Your task to perform on an android device: toggle data saver in the chrome app Image 0: 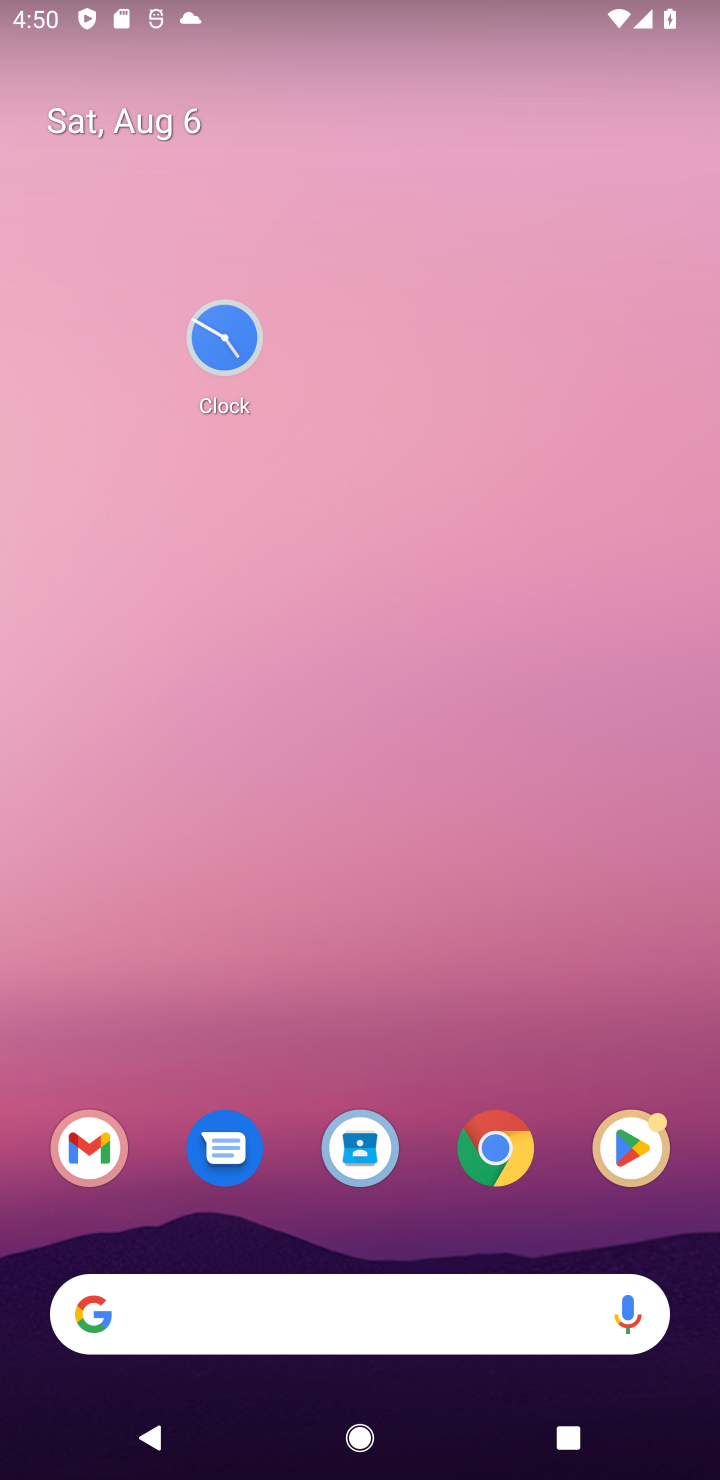
Step 0: click (667, 278)
Your task to perform on an android device: toggle data saver in the chrome app Image 1: 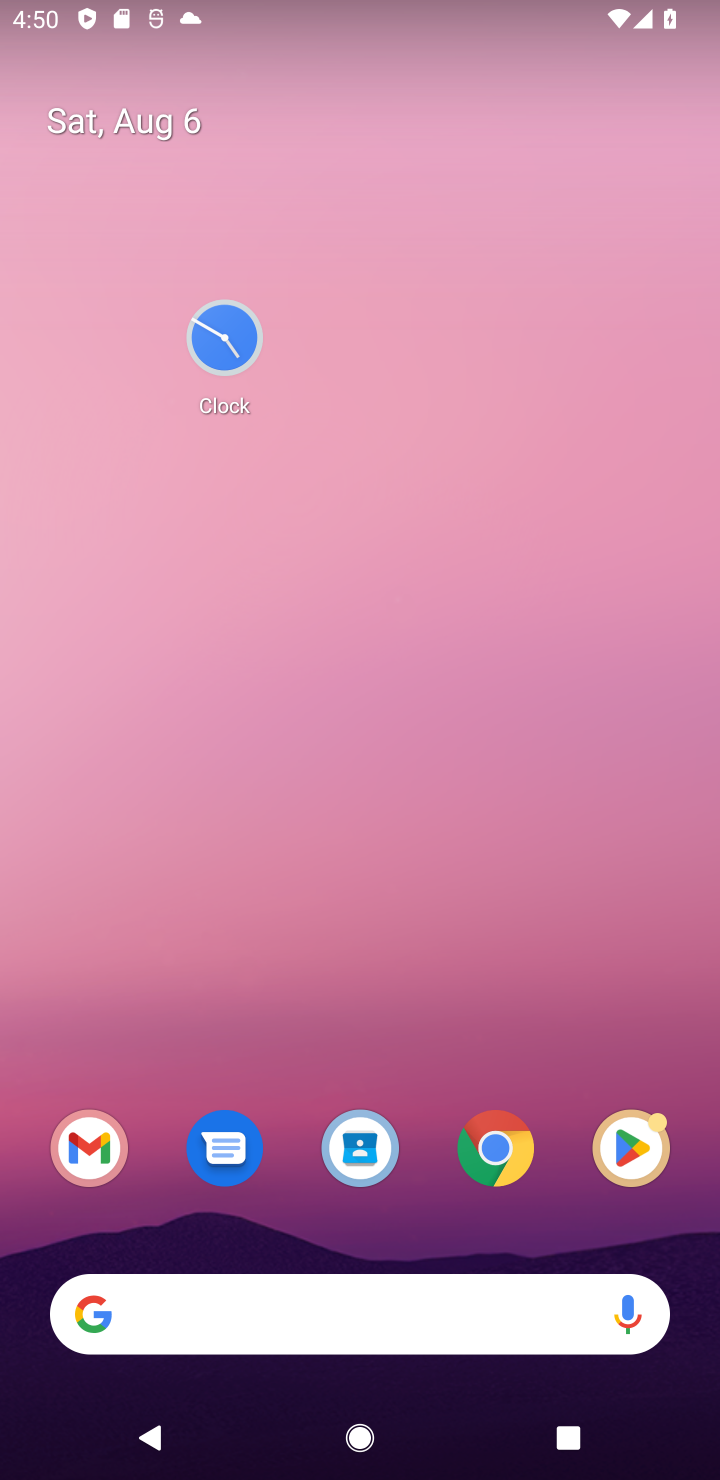
Step 1: drag from (449, 1254) to (439, 462)
Your task to perform on an android device: toggle data saver in the chrome app Image 2: 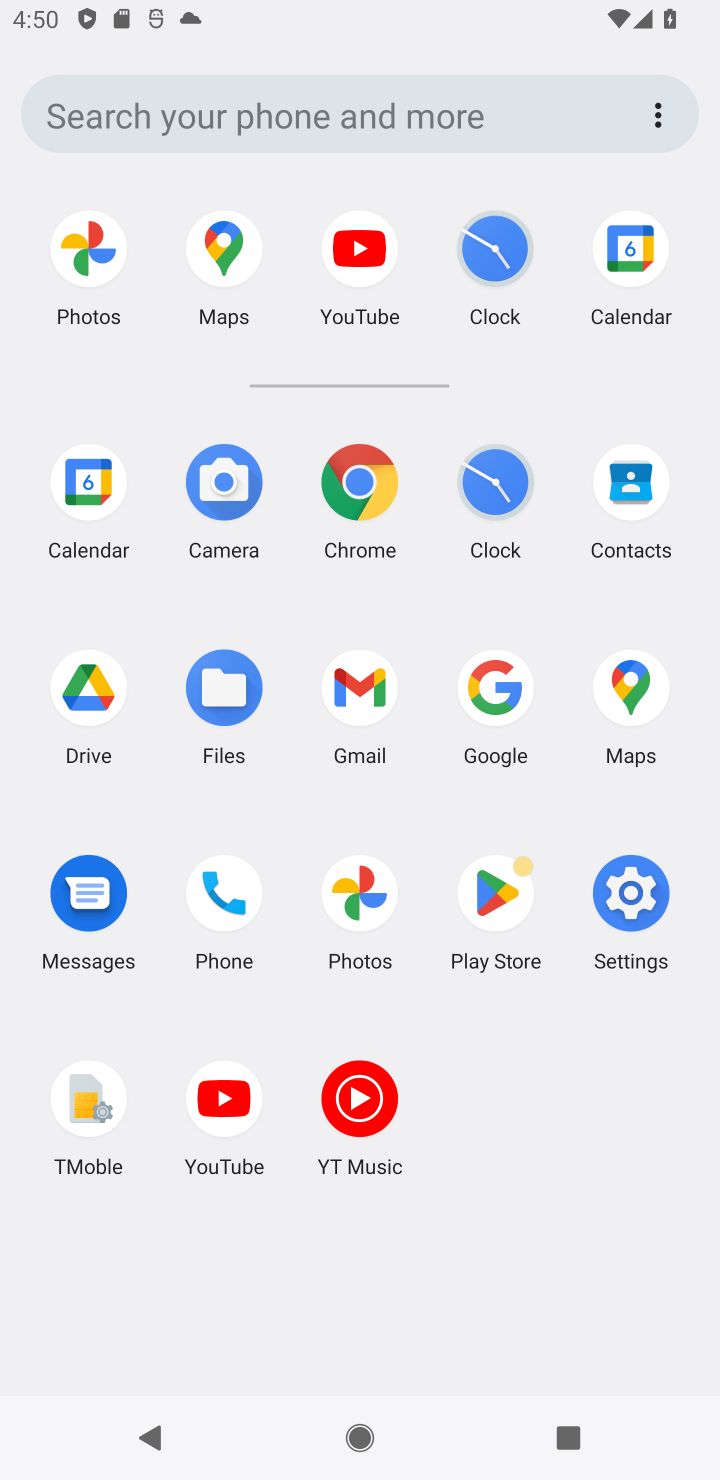
Step 2: click (347, 477)
Your task to perform on an android device: toggle data saver in the chrome app Image 3: 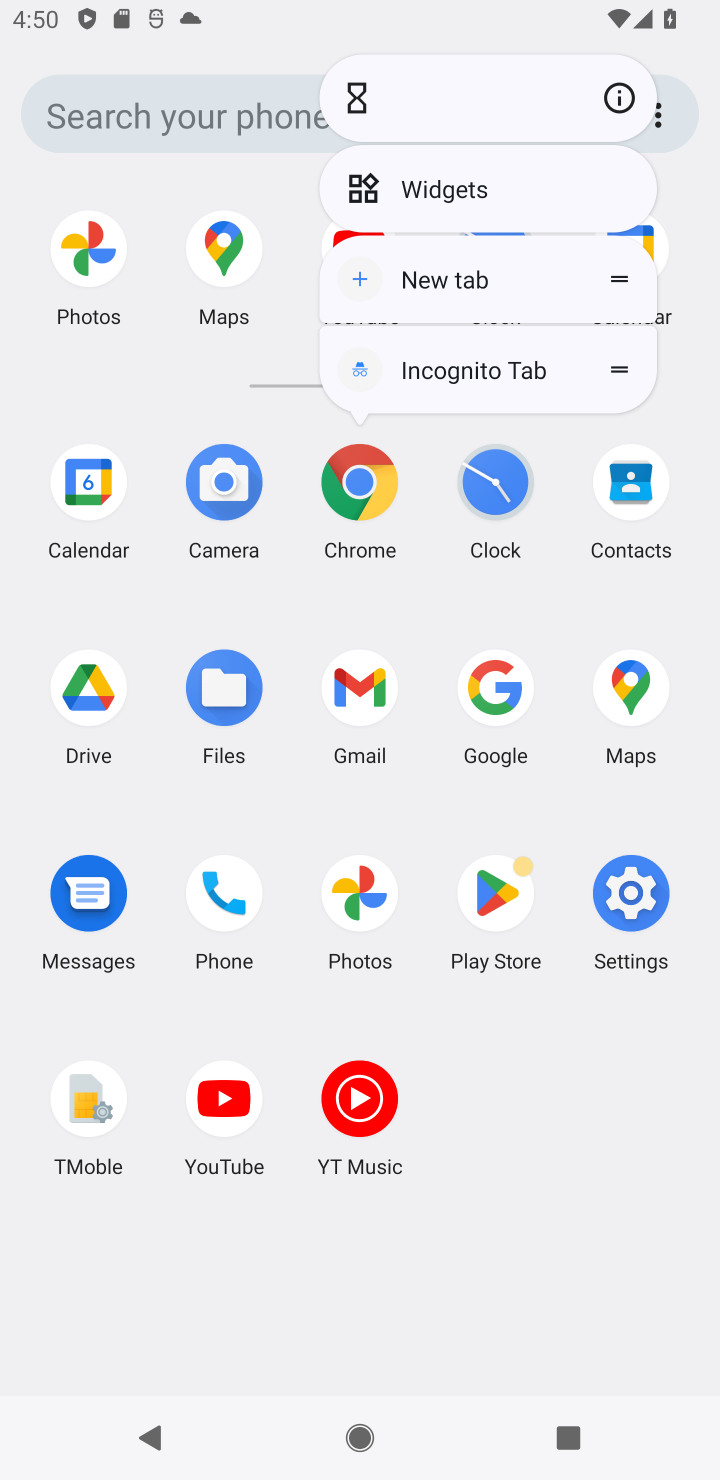
Step 3: click (358, 479)
Your task to perform on an android device: toggle data saver in the chrome app Image 4: 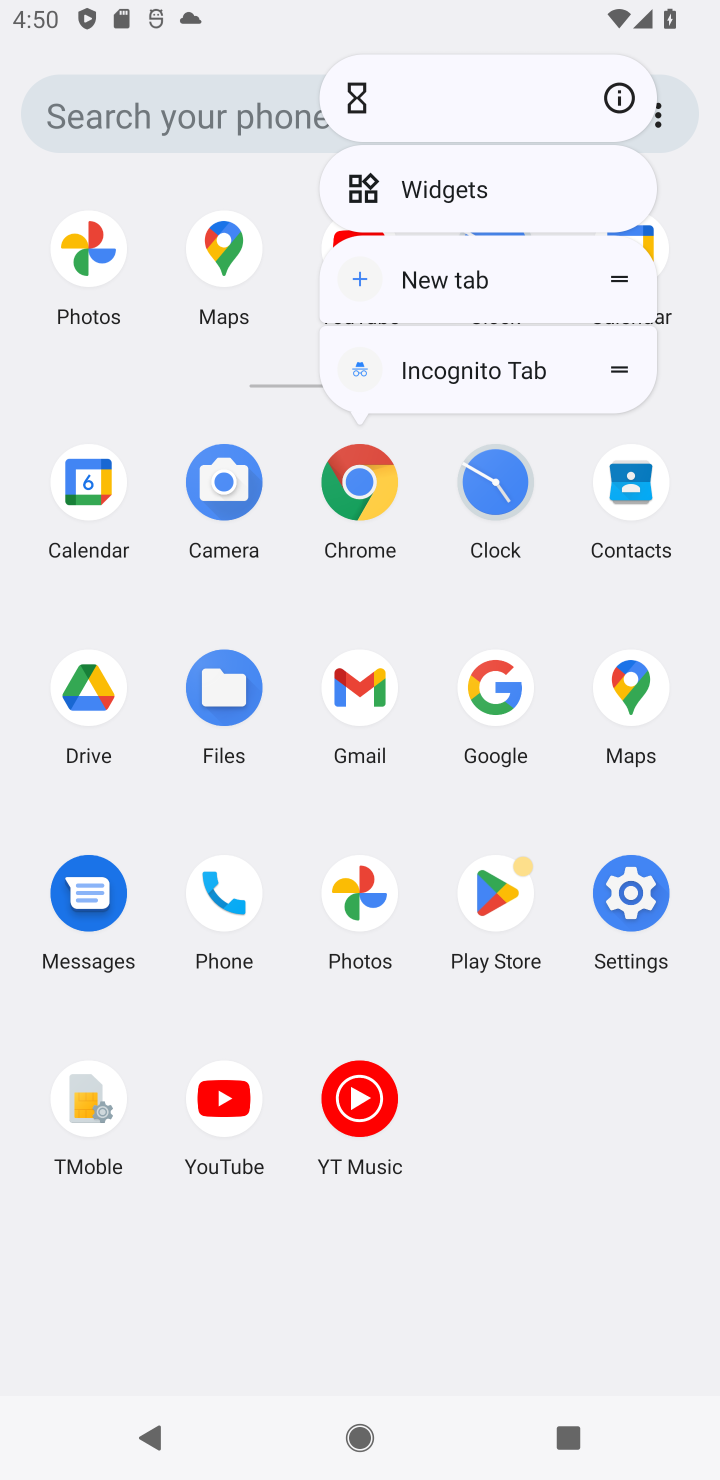
Step 4: click (641, 97)
Your task to perform on an android device: toggle data saver in the chrome app Image 5: 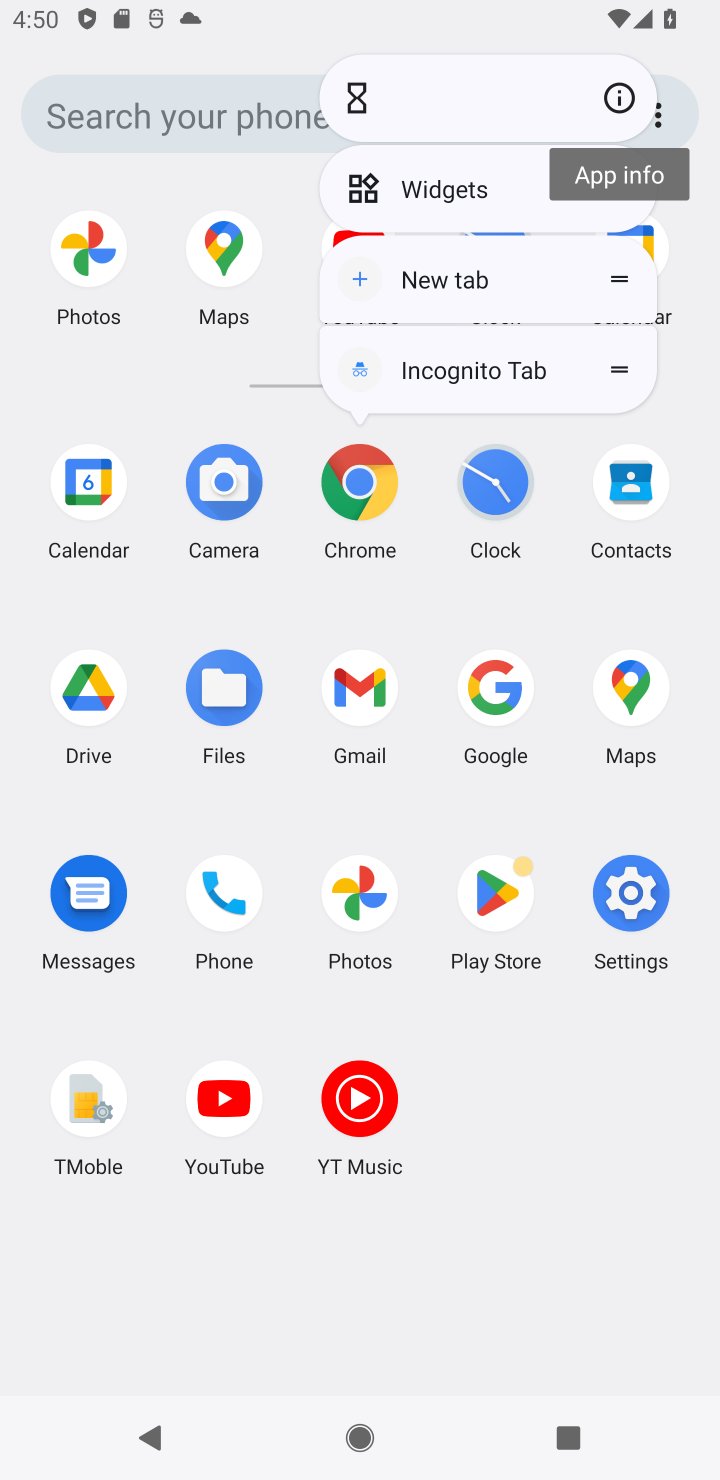
Step 5: click (633, 99)
Your task to perform on an android device: toggle data saver in the chrome app Image 6: 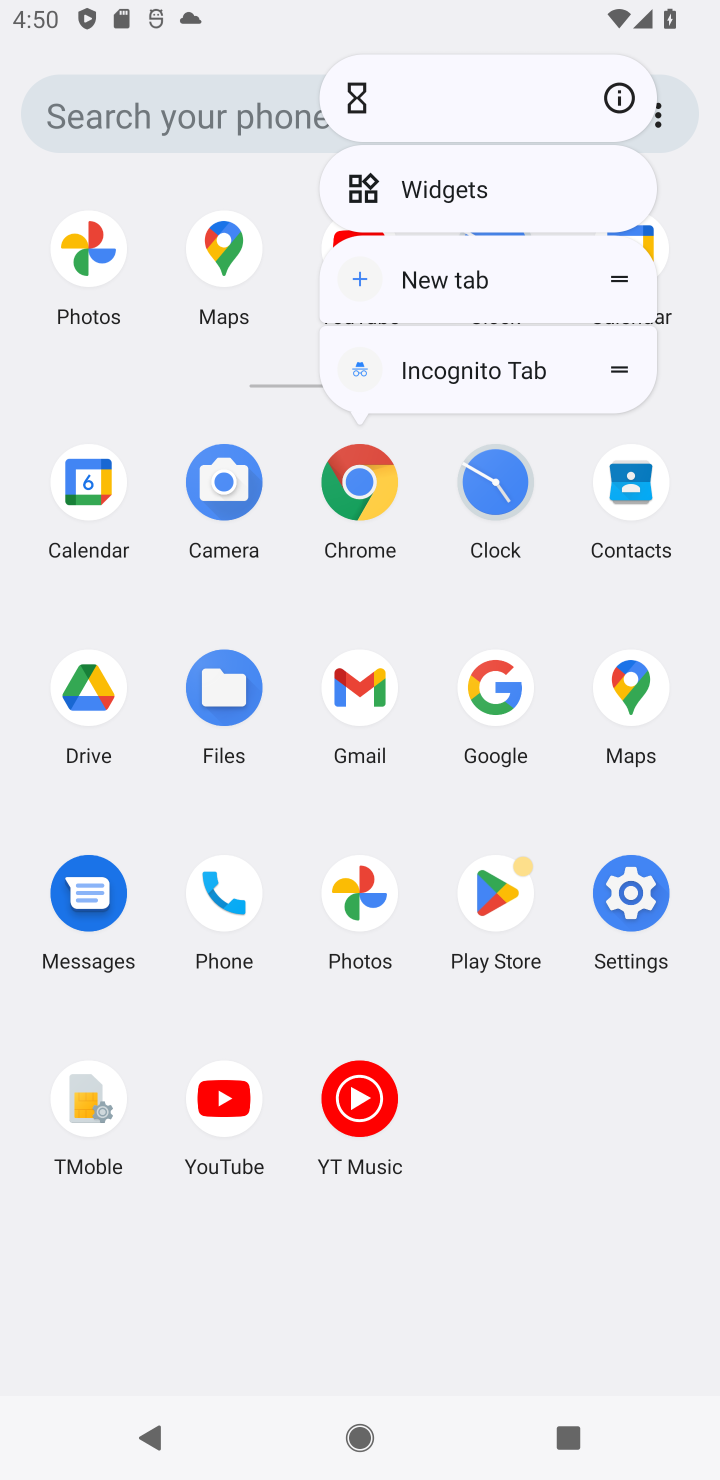
Step 6: click (629, 94)
Your task to perform on an android device: toggle data saver in the chrome app Image 7: 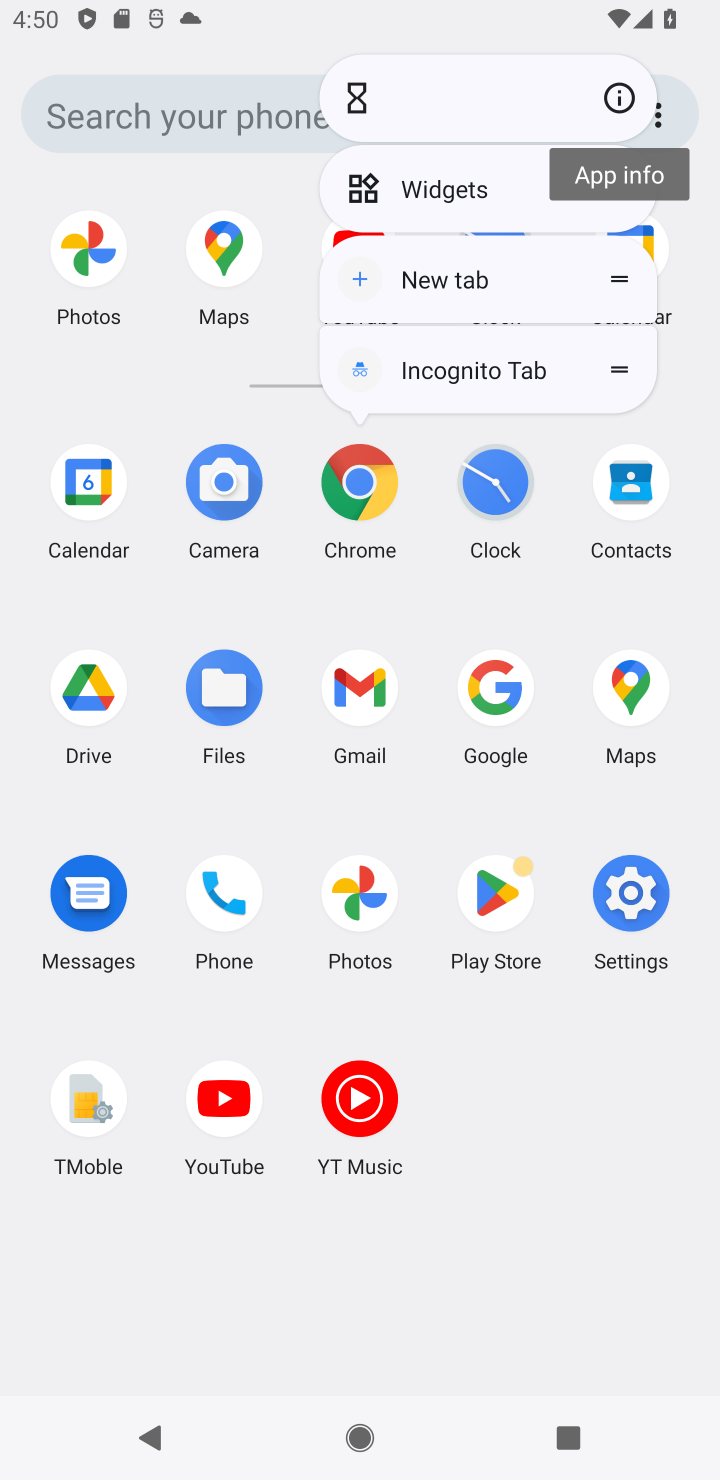
Step 7: click (627, 92)
Your task to perform on an android device: toggle data saver in the chrome app Image 8: 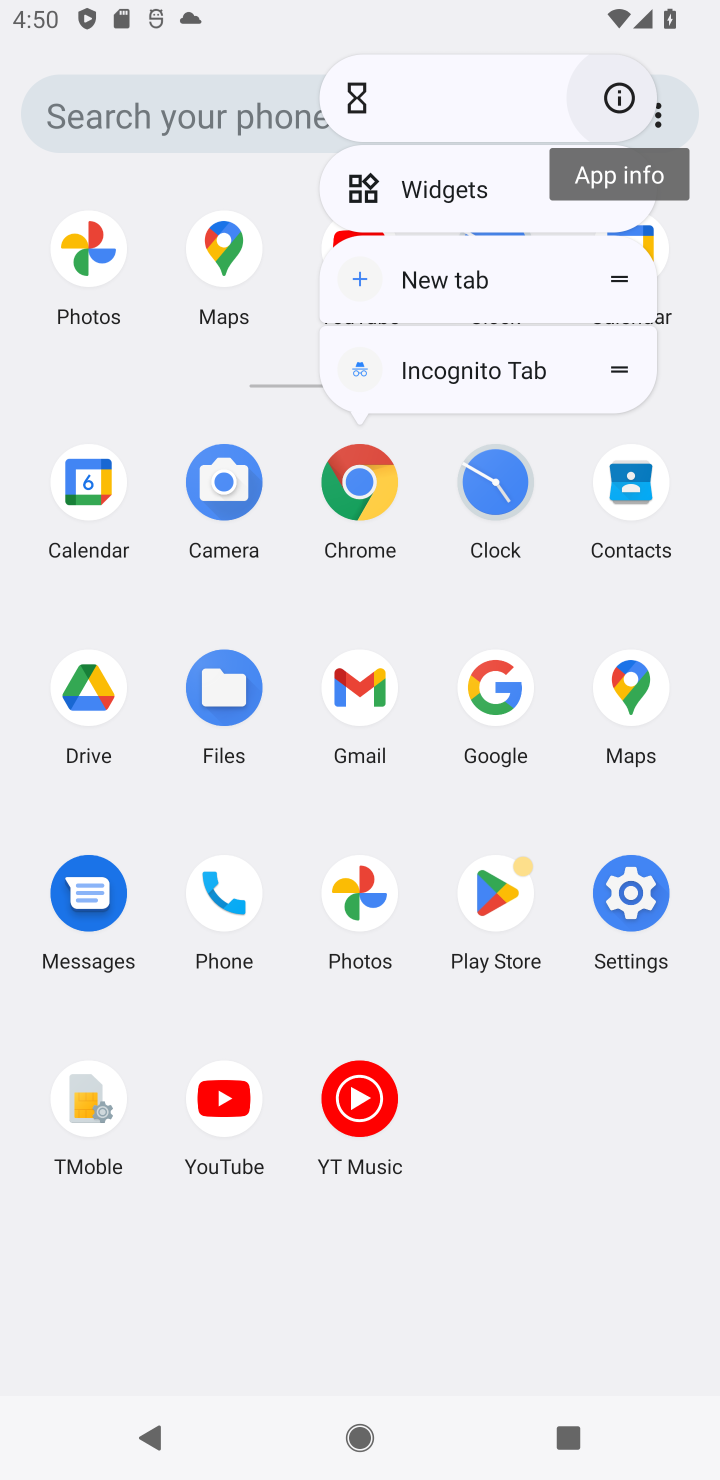
Step 8: click (627, 92)
Your task to perform on an android device: toggle data saver in the chrome app Image 9: 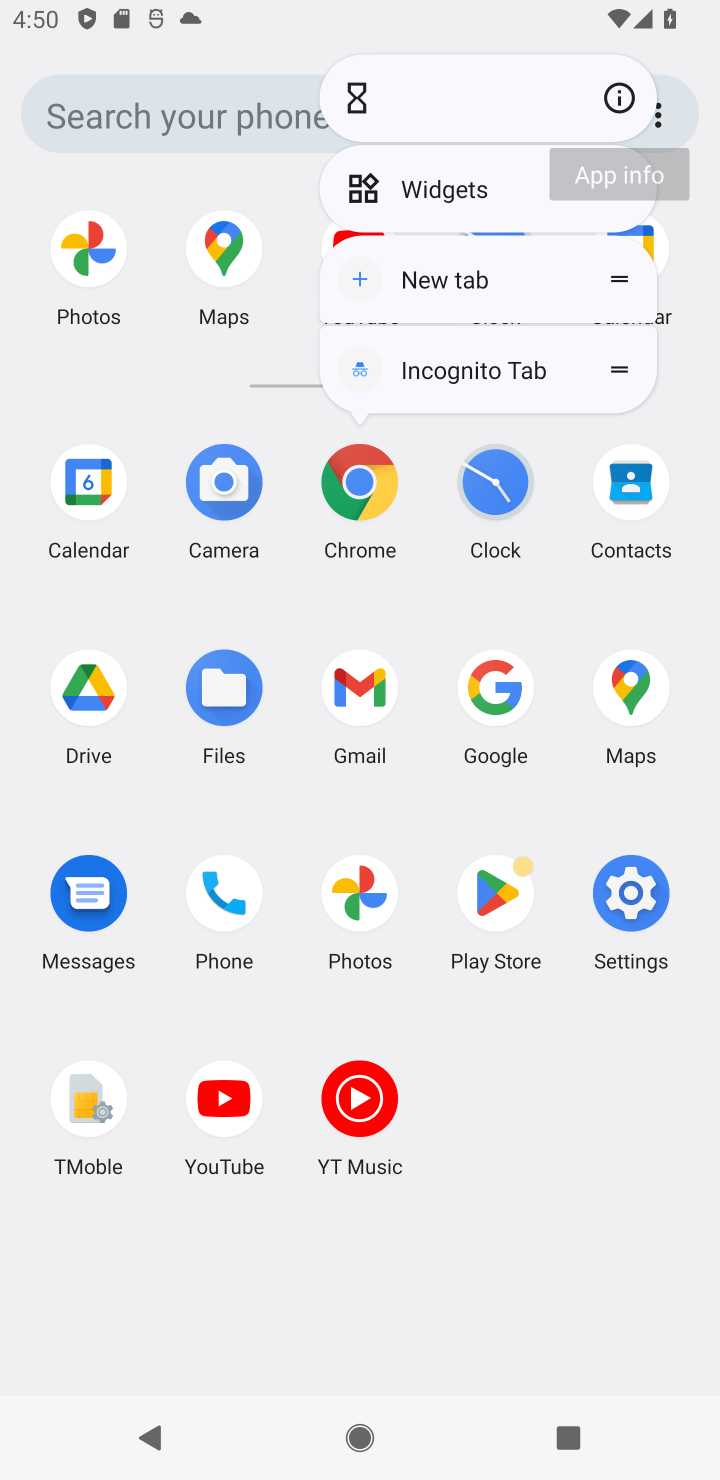
Step 9: click (627, 92)
Your task to perform on an android device: toggle data saver in the chrome app Image 10: 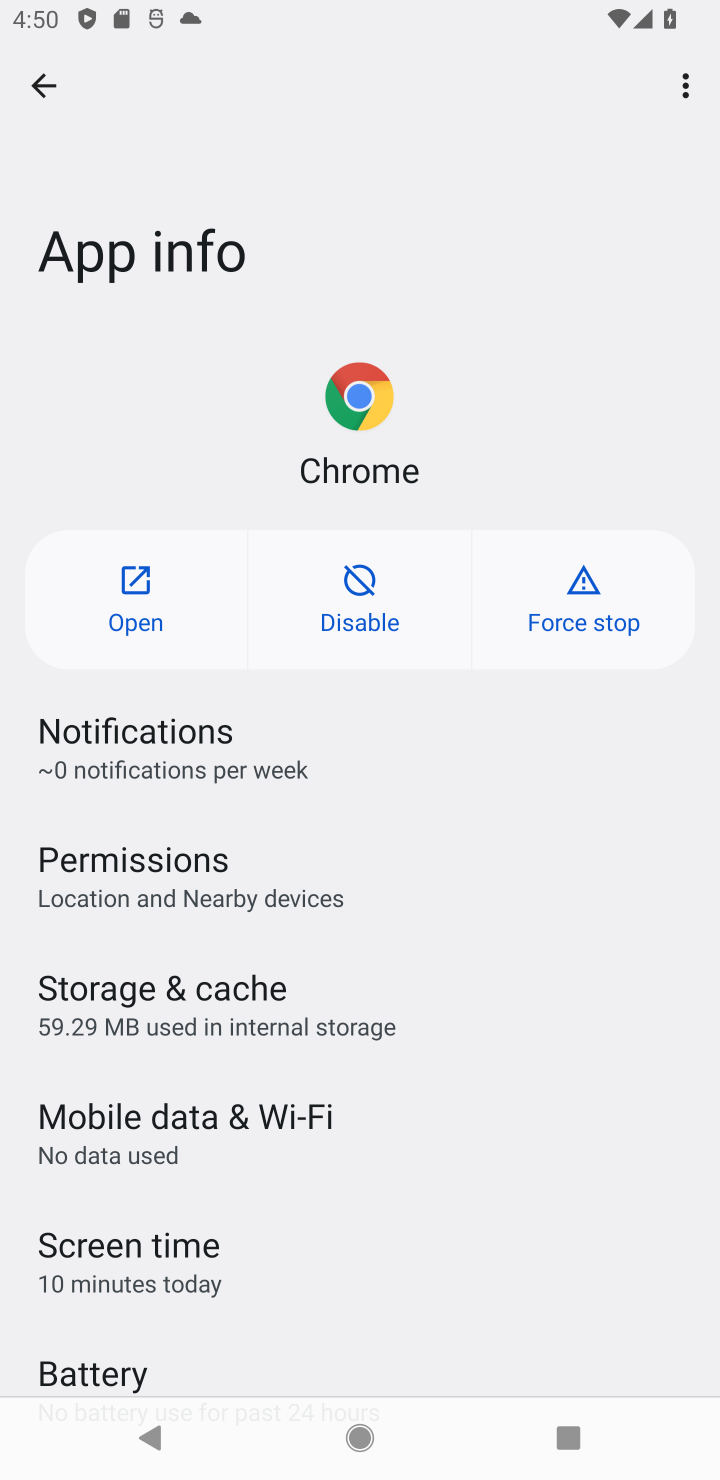
Step 10: click (133, 608)
Your task to perform on an android device: toggle data saver in the chrome app Image 11: 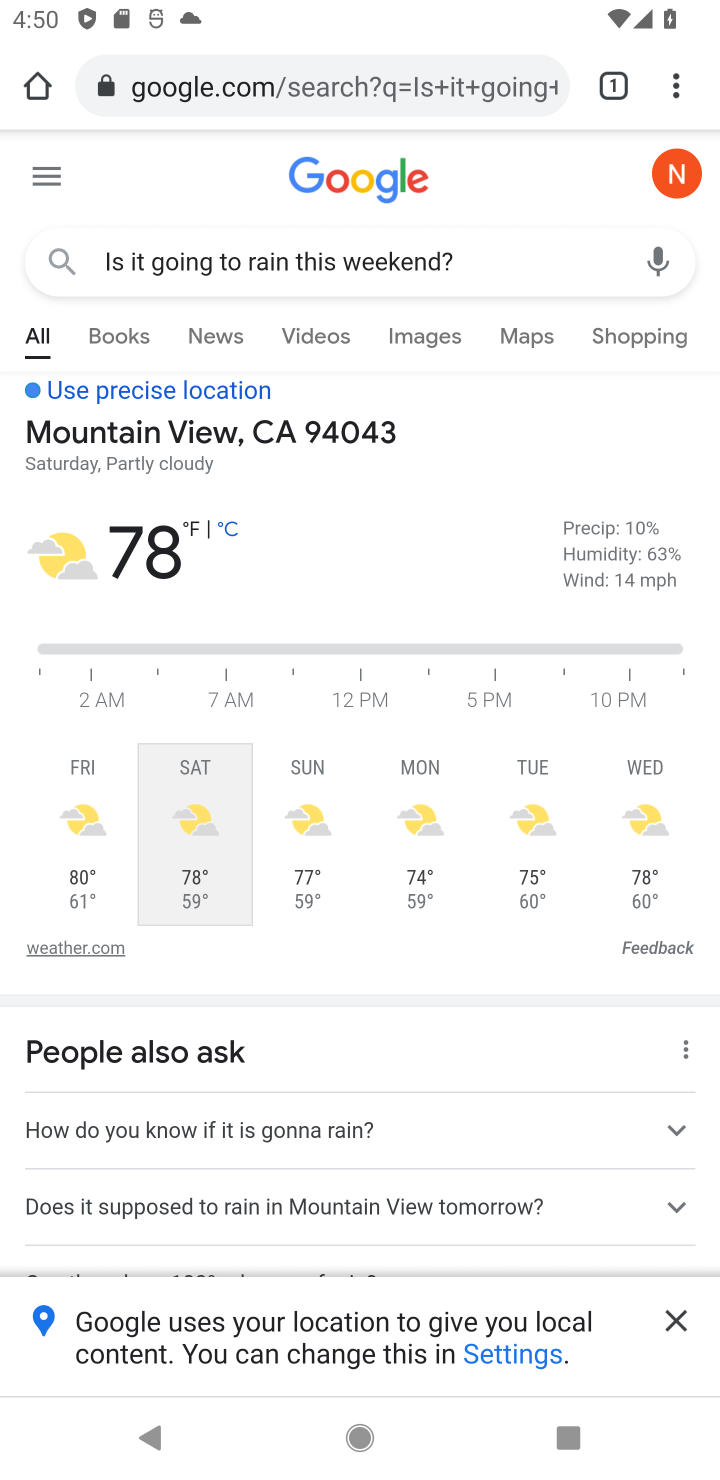
Step 11: drag from (297, 1144) to (569, 278)
Your task to perform on an android device: toggle data saver in the chrome app Image 12: 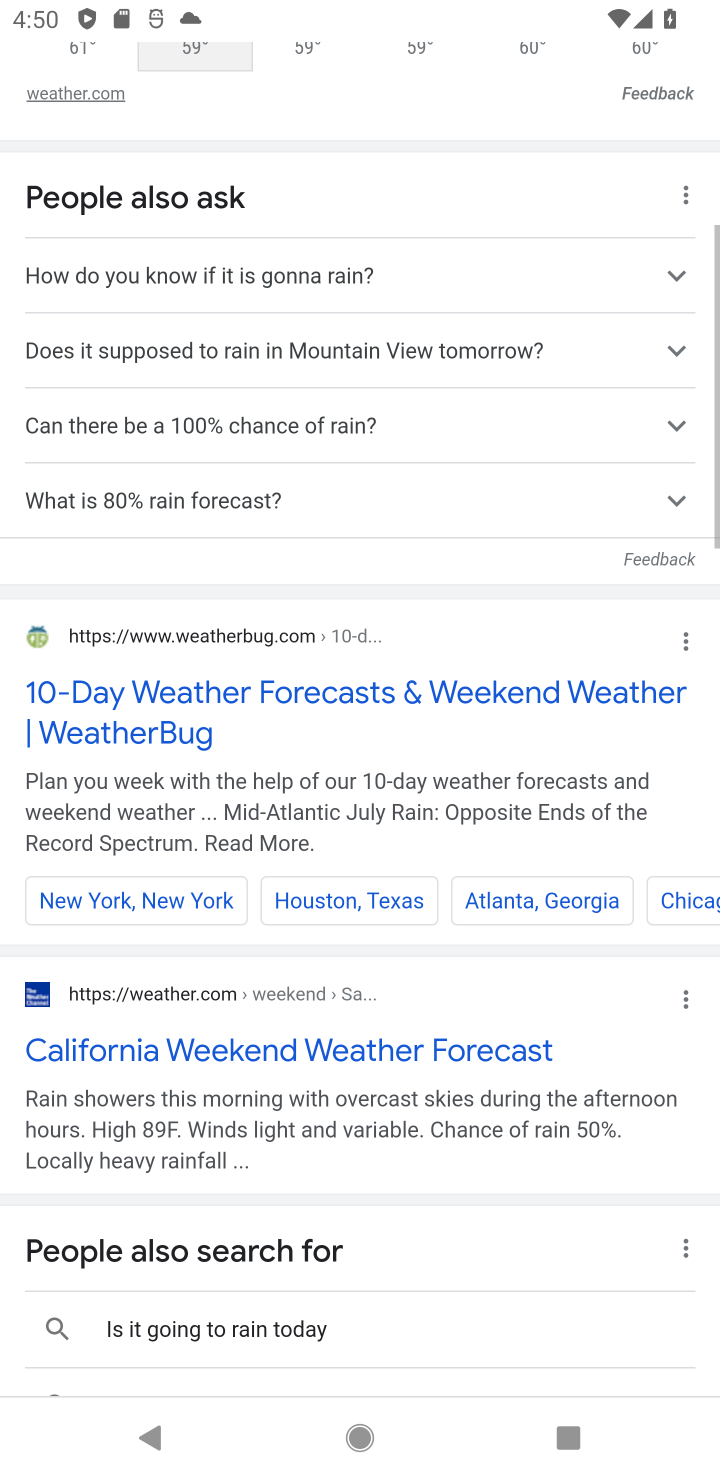
Step 12: drag from (480, 468) to (518, 1477)
Your task to perform on an android device: toggle data saver in the chrome app Image 13: 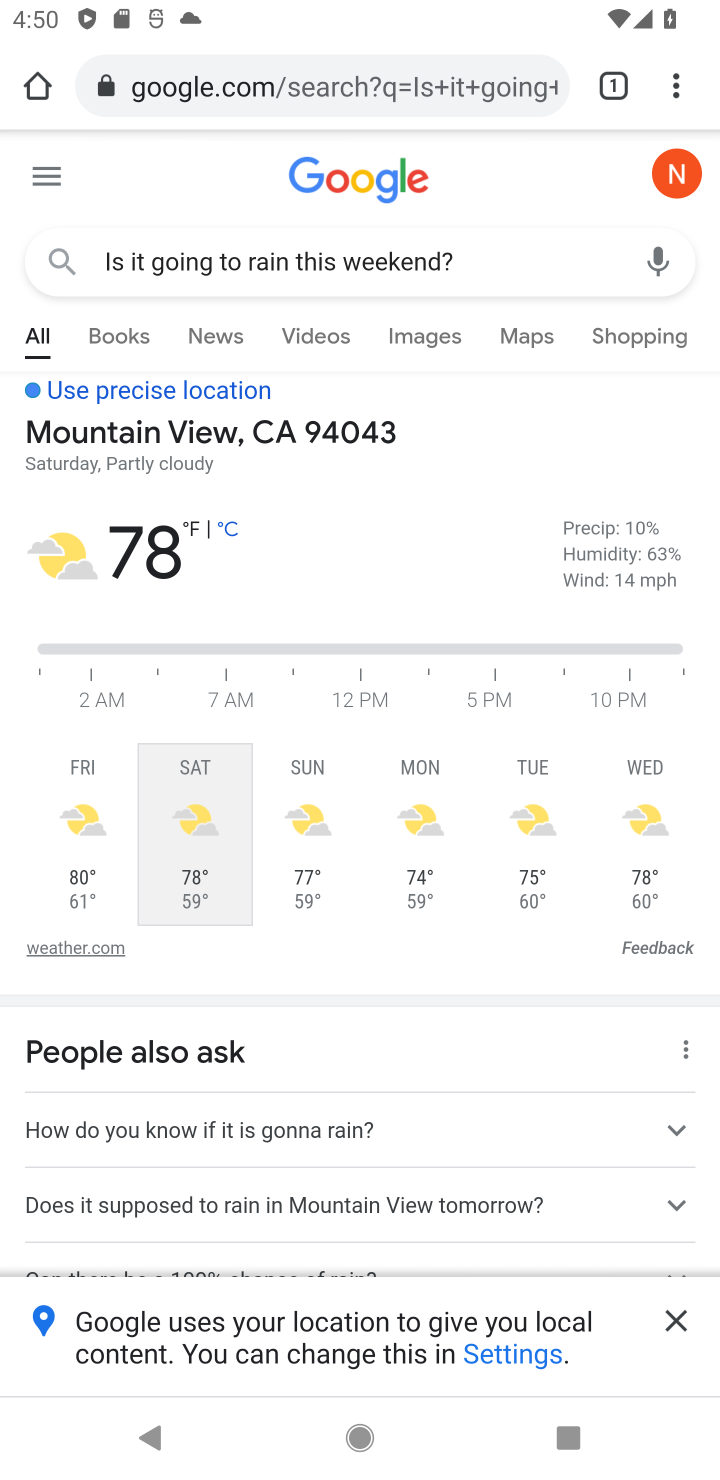
Step 13: drag from (478, 345) to (452, 1213)
Your task to perform on an android device: toggle data saver in the chrome app Image 14: 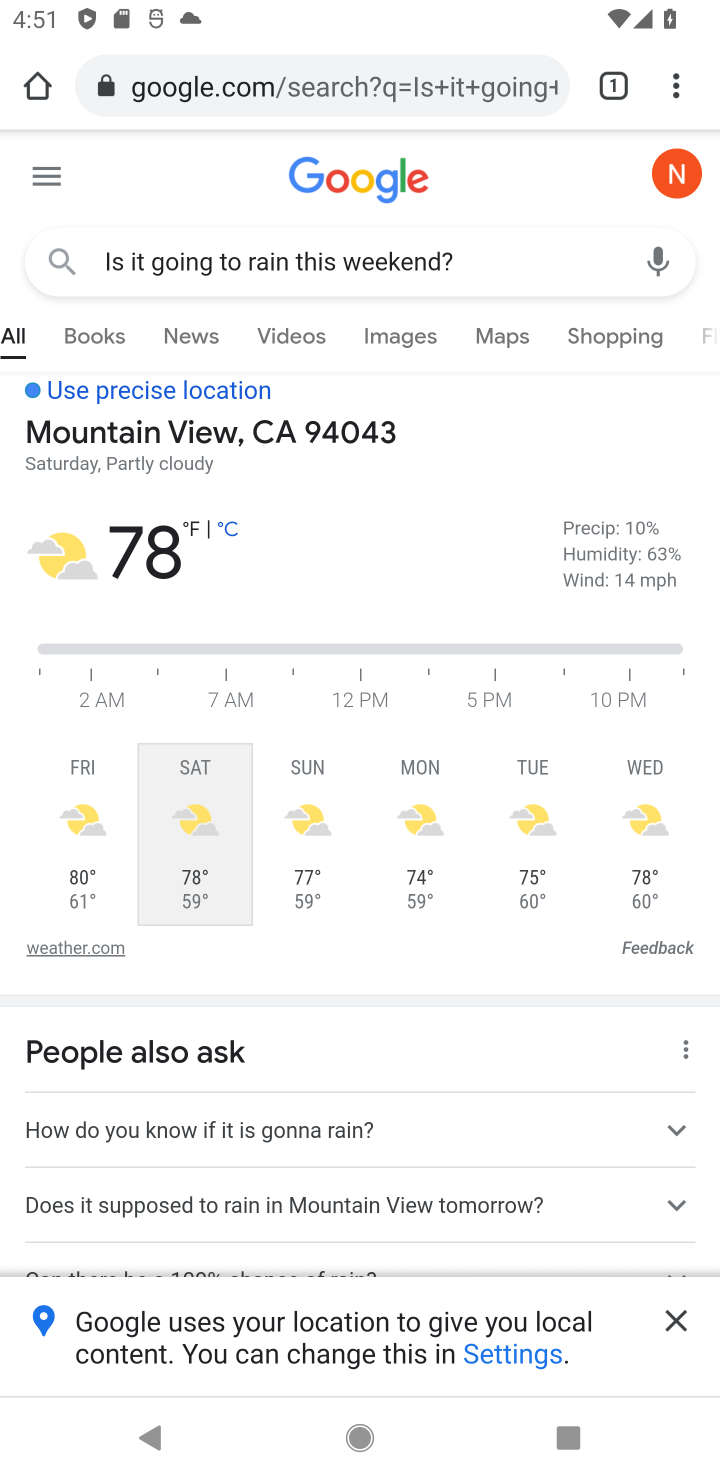
Step 14: drag from (679, 79) to (462, 1138)
Your task to perform on an android device: toggle data saver in the chrome app Image 15: 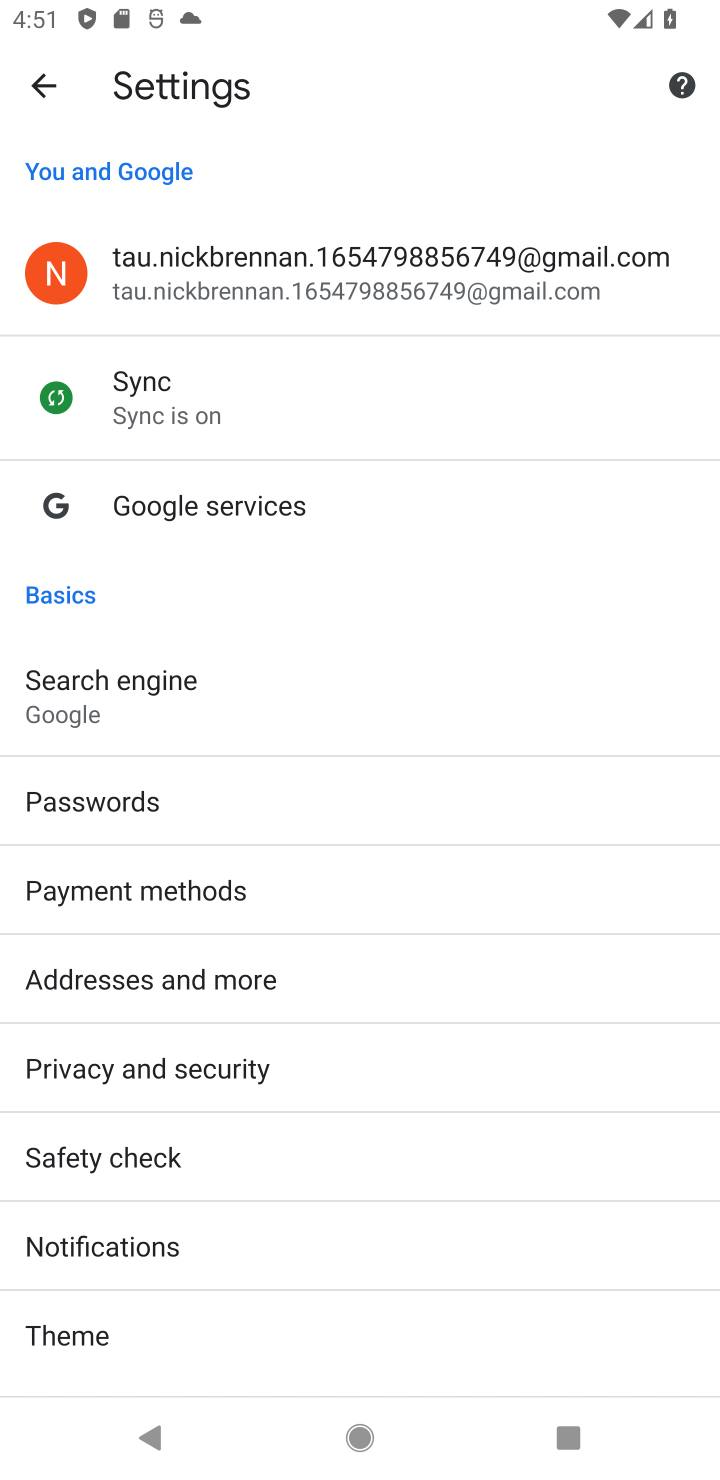
Step 15: drag from (240, 1235) to (381, 344)
Your task to perform on an android device: toggle data saver in the chrome app Image 16: 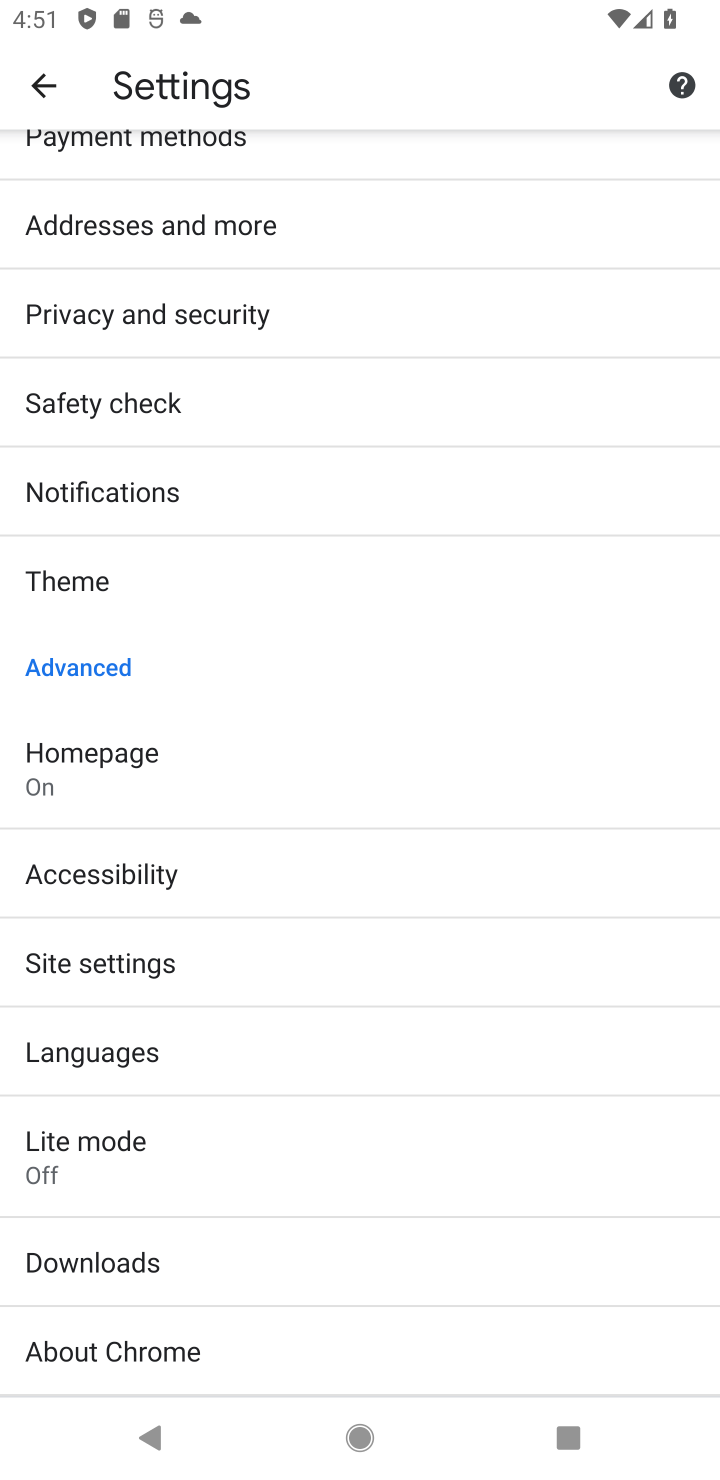
Step 16: click (130, 1159)
Your task to perform on an android device: toggle data saver in the chrome app Image 17: 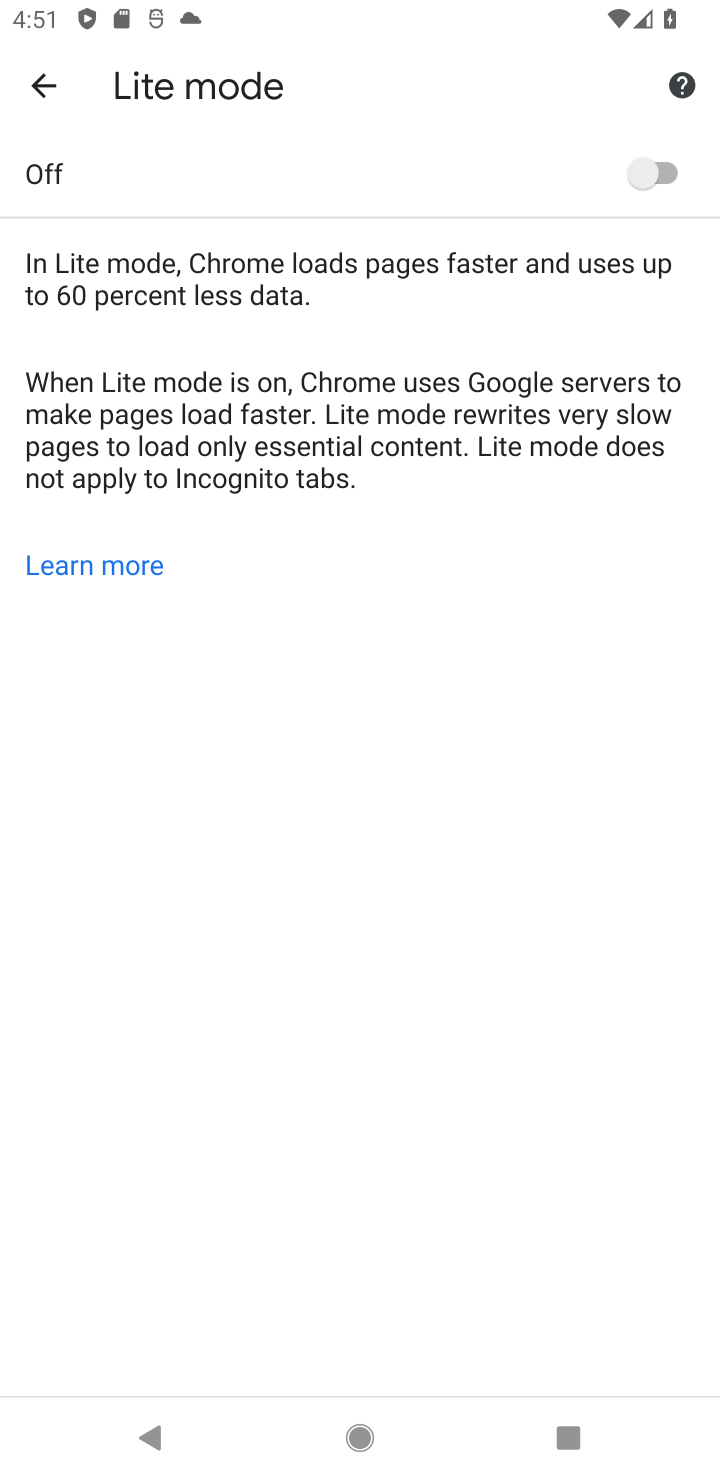
Step 17: click (647, 168)
Your task to perform on an android device: toggle data saver in the chrome app Image 18: 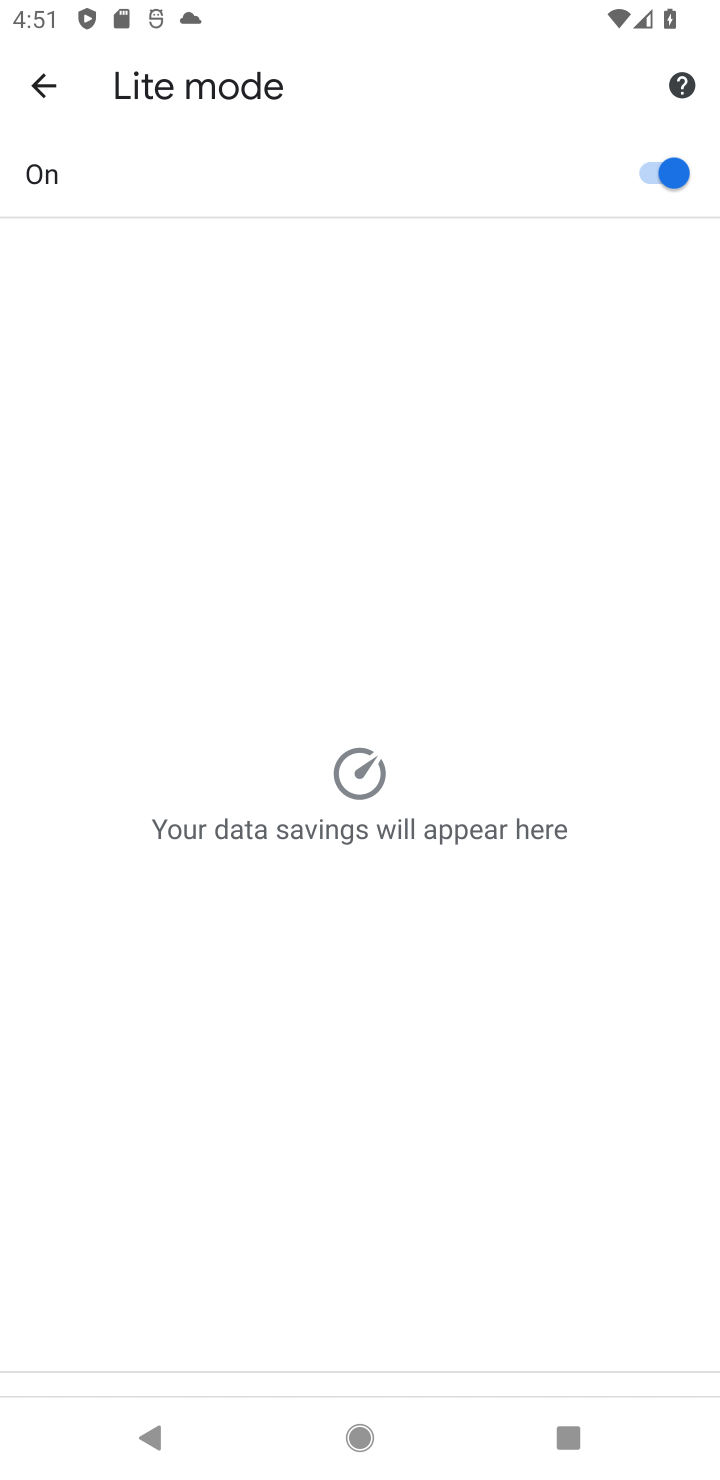
Step 18: task complete